Your task to perform on an android device: open app "Move to iOS" (install if not already installed), go to login, and select forgot password Image 0: 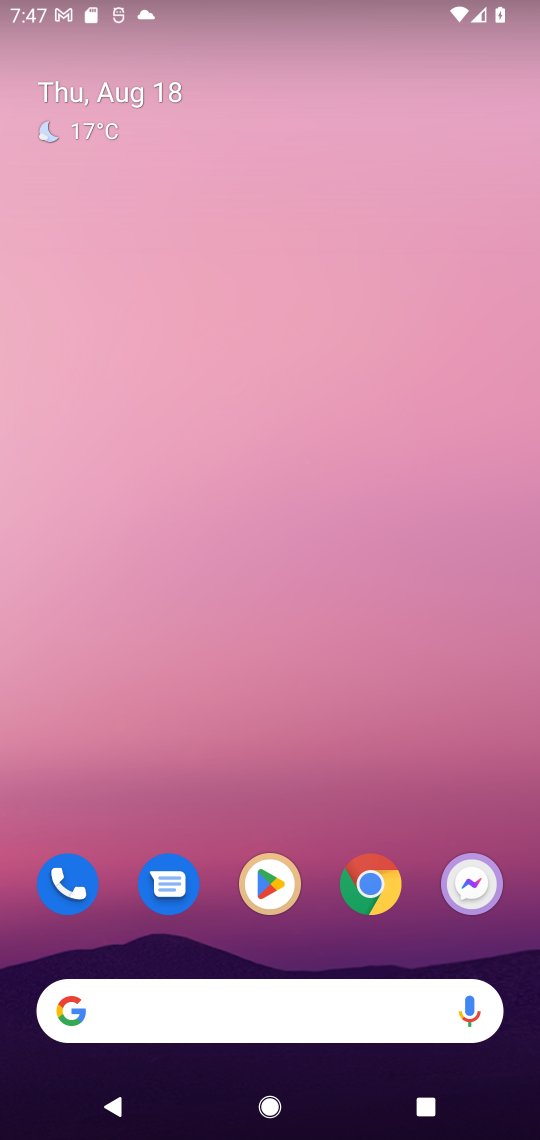
Step 0: drag from (314, 1011) to (342, 141)
Your task to perform on an android device: open app "Move to iOS" (install if not already installed), go to login, and select forgot password Image 1: 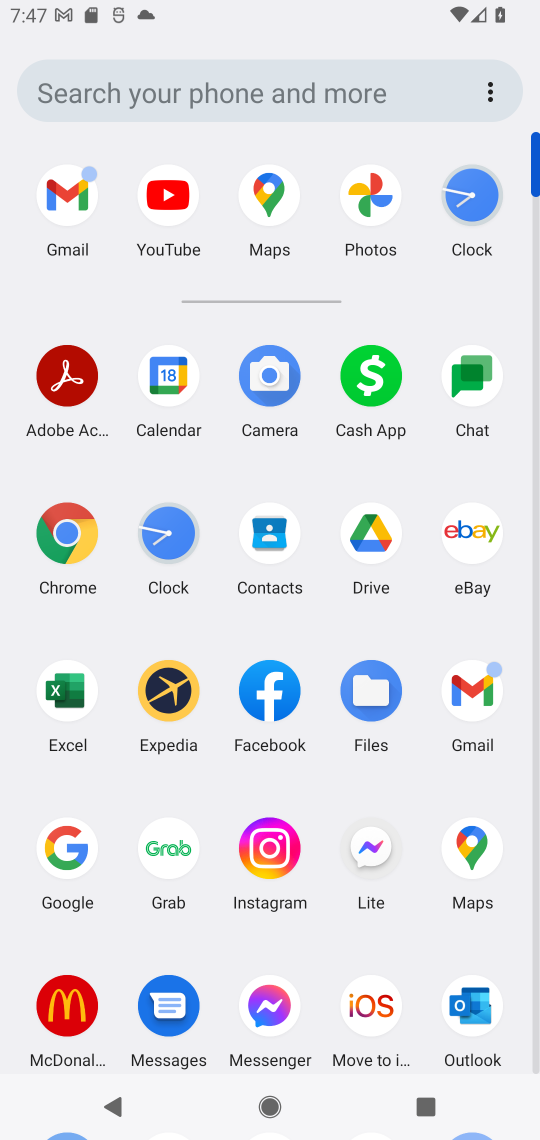
Step 1: drag from (314, 481) to (359, 161)
Your task to perform on an android device: open app "Move to iOS" (install if not already installed), go to login, and select forgot password Image 2: 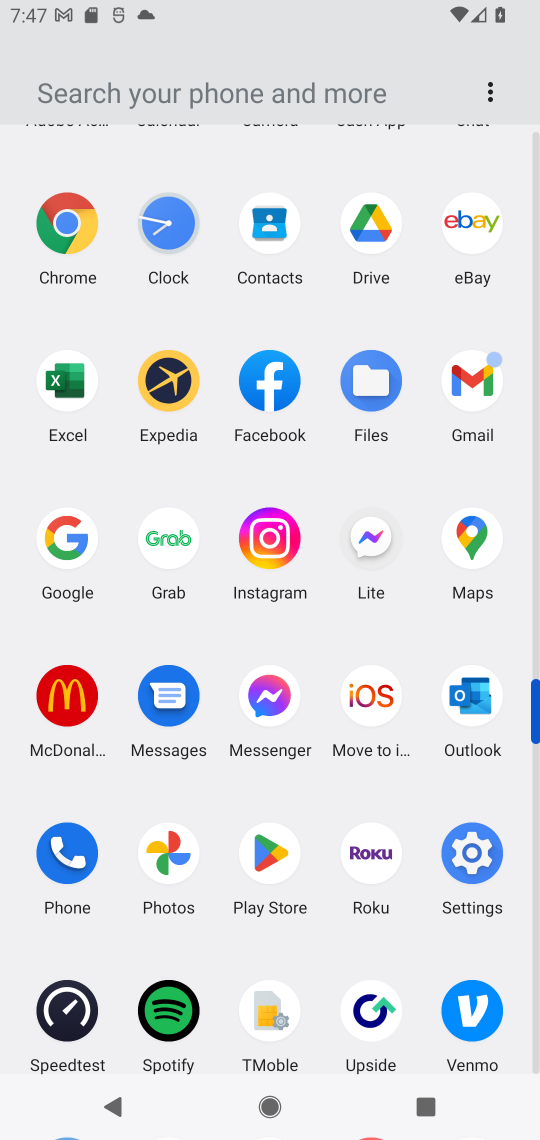
Step 2: drag from (327, 538) to (341, 192)
Your task to perform on an android device: open app "Move to iOS" (install if not already installed), go to login, and select forgot password Image 3: 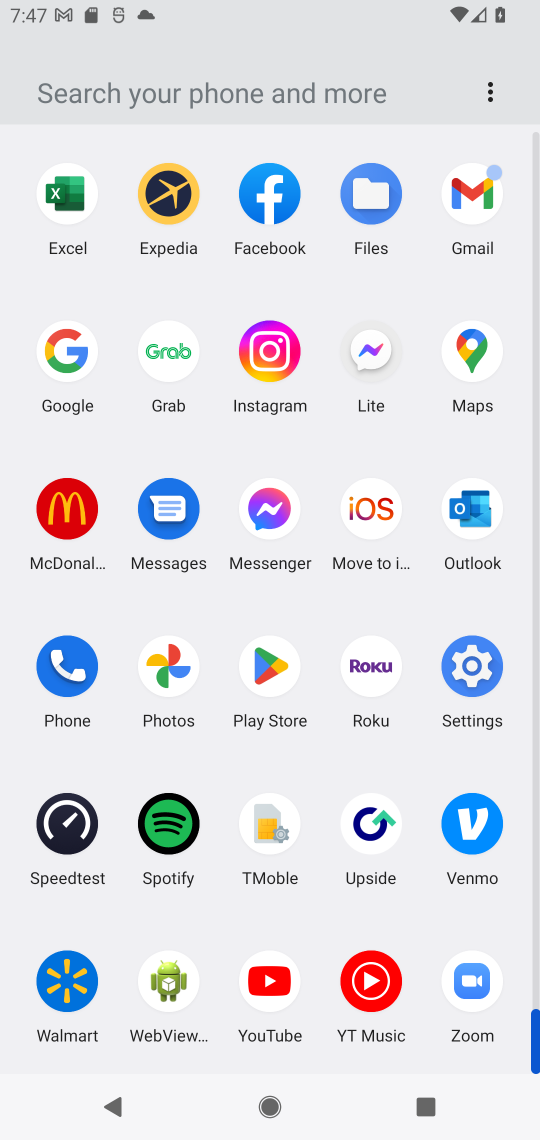
Step 3: click (274, 672)
Your task to perform on an android device: open app "Move to iOS" (install if not already installed), go to login, and select forgot password Image 4: 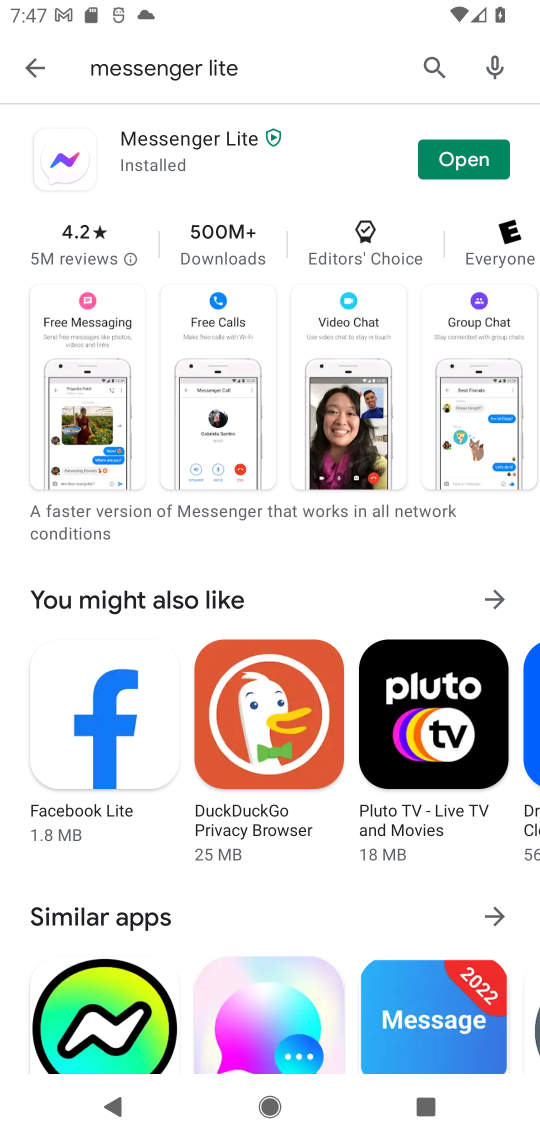
Step 4: press back button
Your task to perform on an android device: open app "Move to iOS" (install if not already installed), go to login, and select forgot password Image 5: 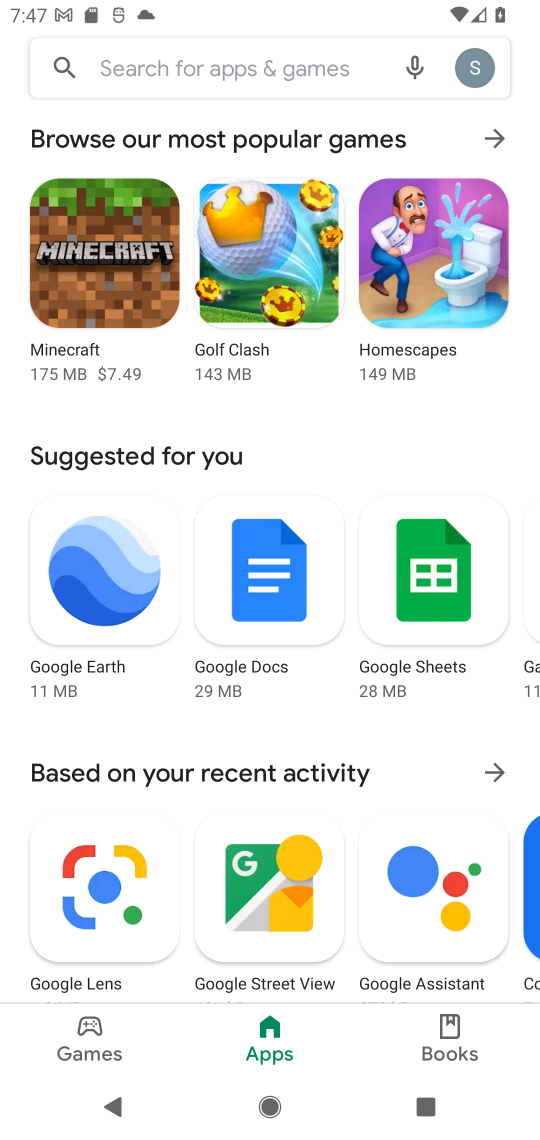
Step 5: click (290, 69)
Your task to perform on an android device: open app "Move to iOS" (install if not already installed), go to login, and select forgot password Image 6: 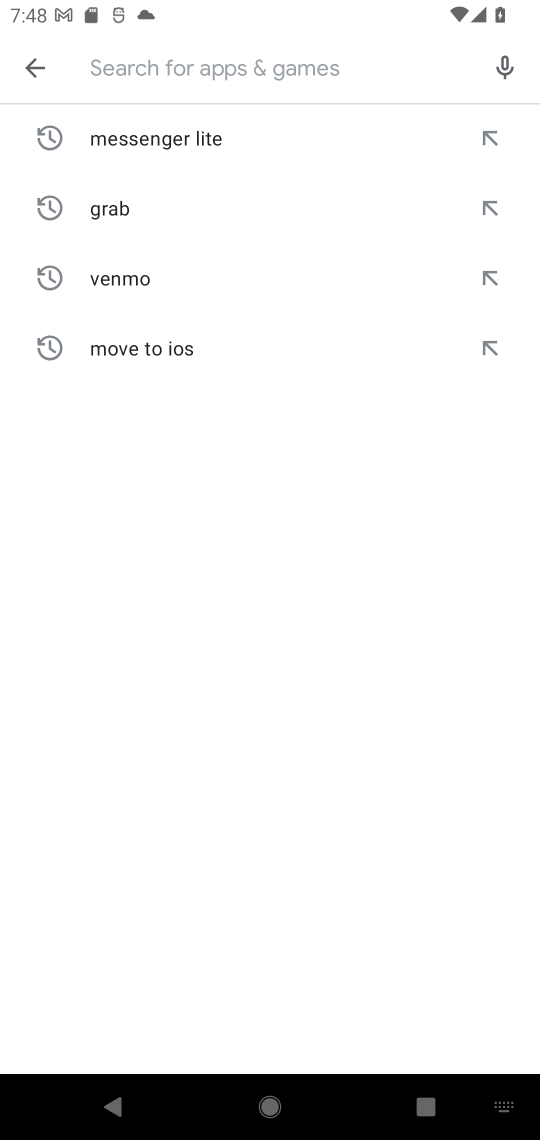
Step 6: type "Move to iOS"
Your task to perform on an android device: open app "Move to iOS" (install if not already installed), go to login, and select forgot password Image 7: 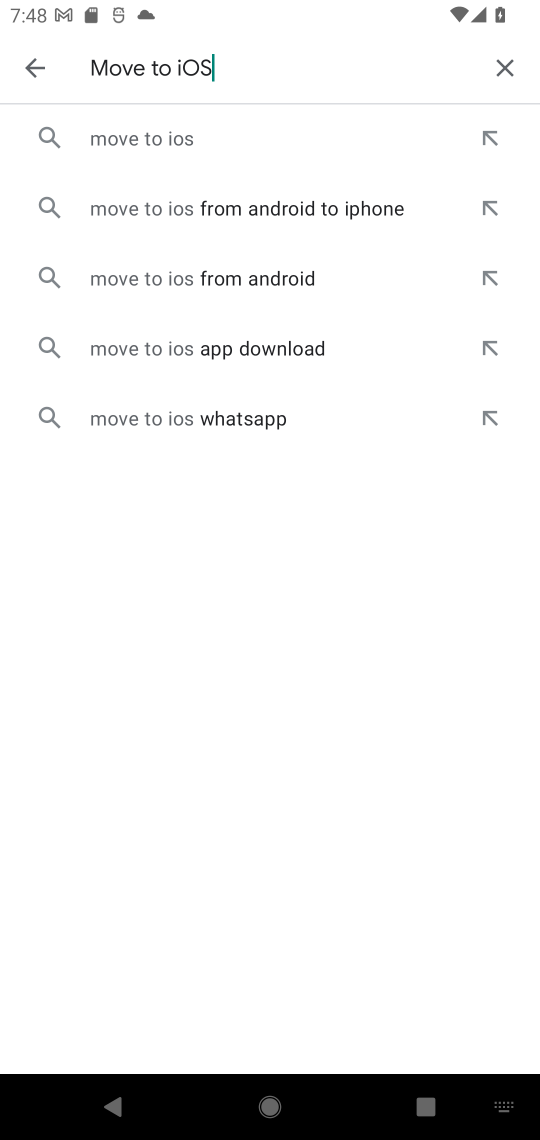
Step 7: click (151, 142)
Your task to perform on an android device: open app "Move to iOS" (install if not already installed), go to login, and select forgot password Image 8: 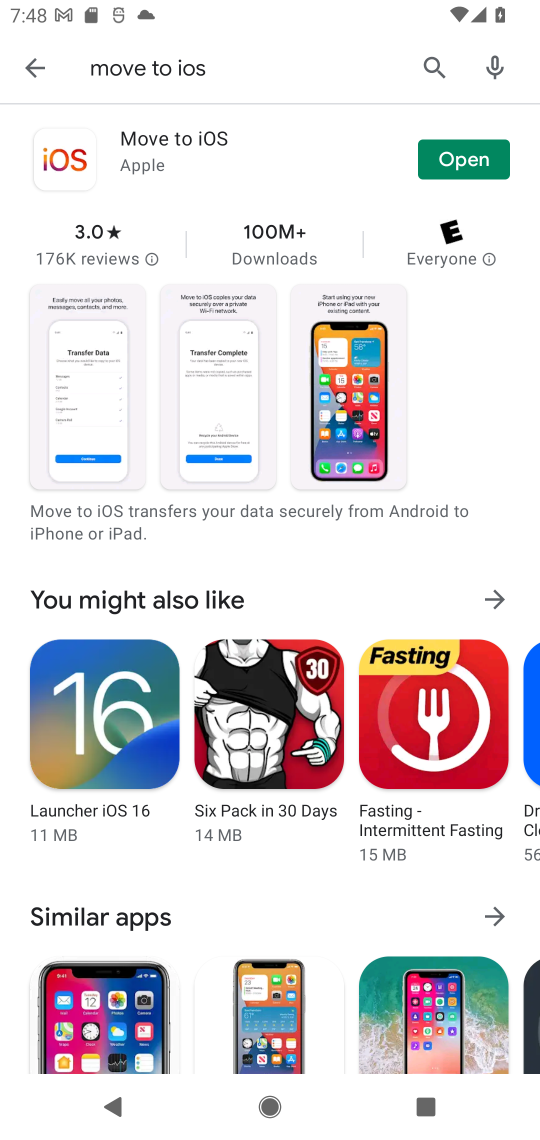
Step 8: click (470, 159)
Your task to perform on an android device: open app "Move to iOS" (install if not already installed), go to login, and select forgot password Image 9: 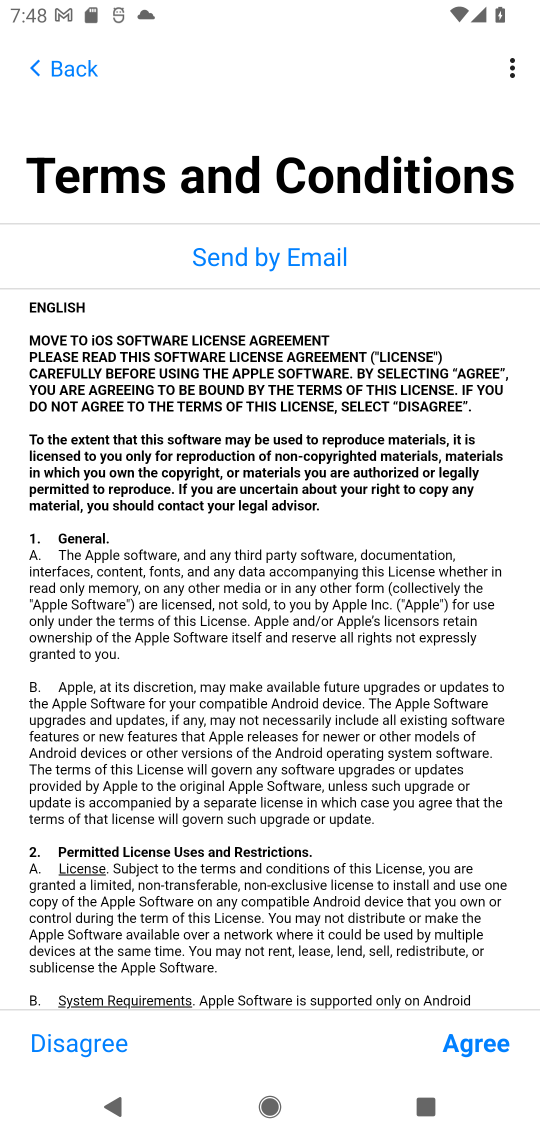
Step 9: drag from (299, 746) to (366, 12)
Your task to perform on an android device: open app "Move to iOS" (install if not already installed), go to login, and select forgot password Image 10: 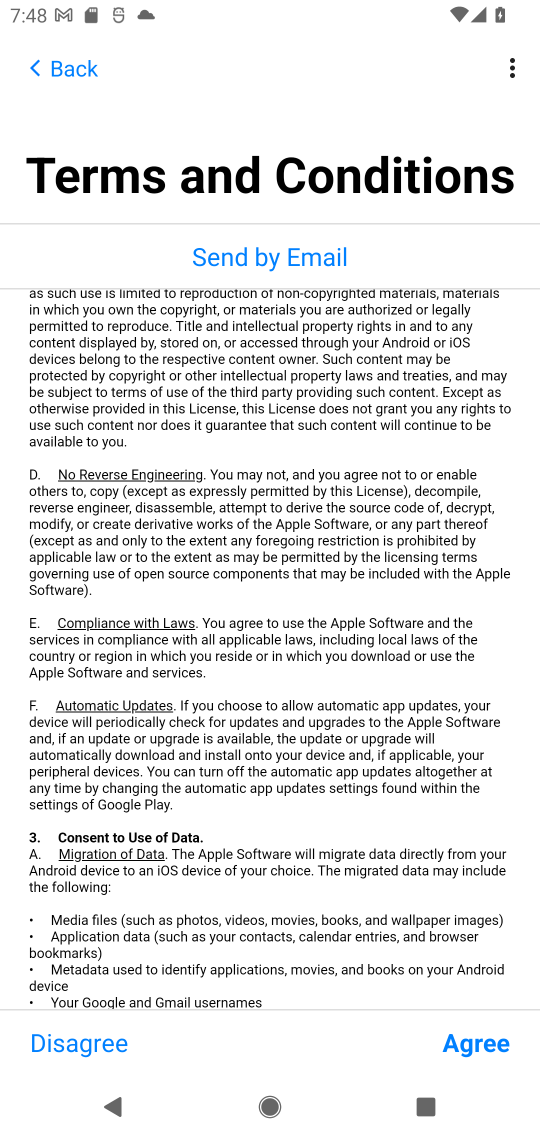
Step 10: drag from (307, 978) to (384, 15)
Your task to perform on an android device: open app "Move to iOS" (install if not already installed), go to login, and select forgot password Image 11: 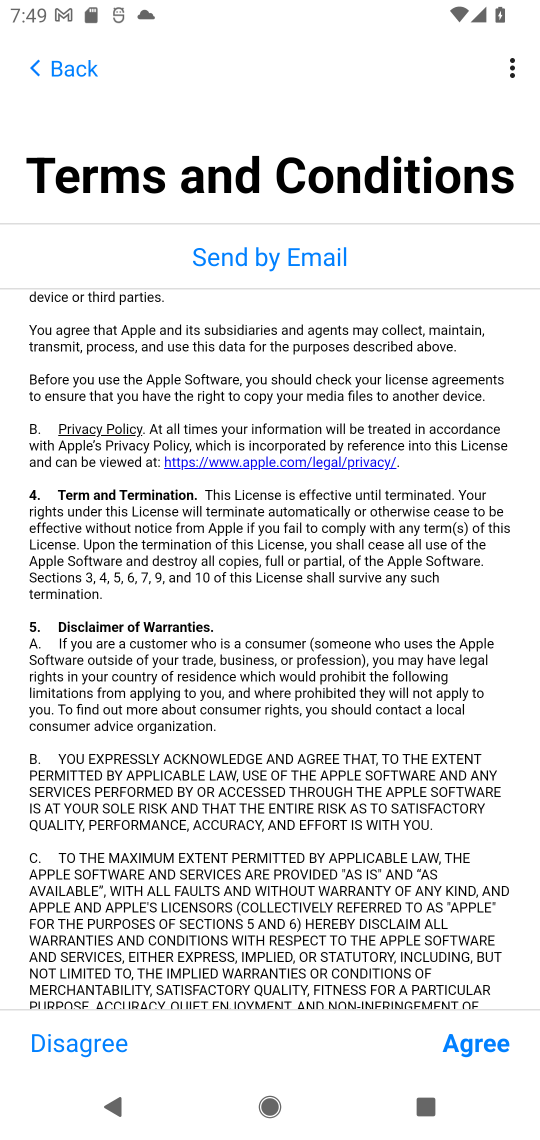
Step 11: drag from (253, 1024) to (338, 38)
Your task to perform on an android device: open app "Move to iOS" (install if not already installed), go to login, and select forgot password Image 12: 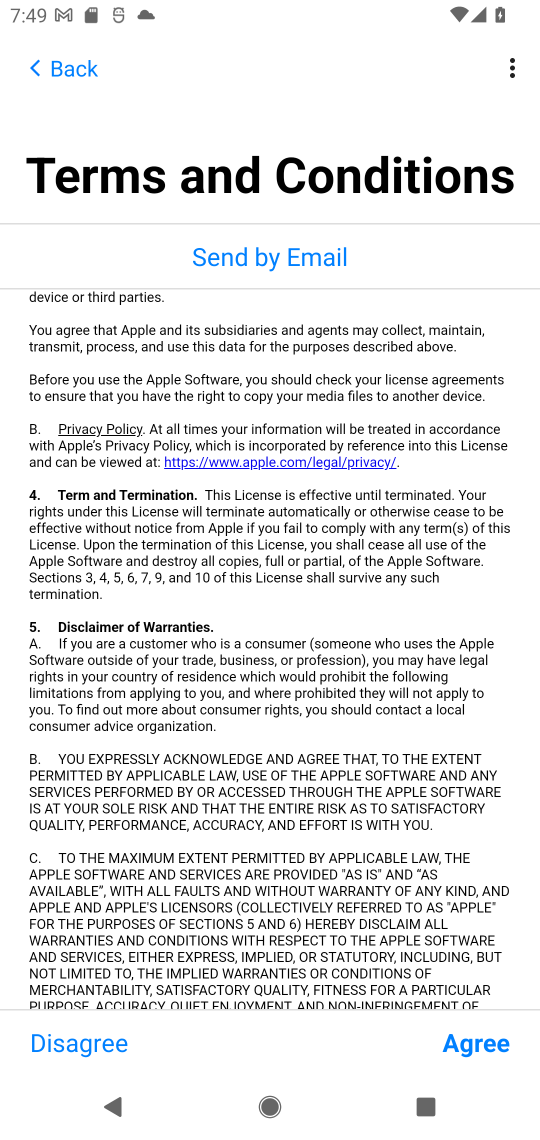
Step 12: drag from (228, 970) to (286, 170)
Your task to perform on an android device: open app "Move to iOS" (install if not already installed), go to login, and select forgot password Image 13: 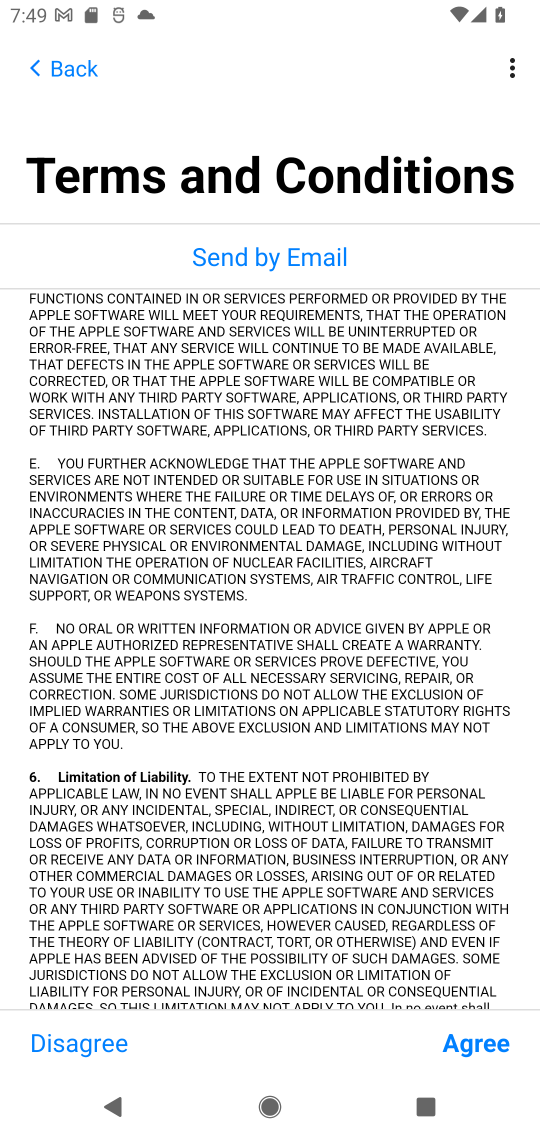
Step 13: drag from (274, 977) to (333, 313)
Your task to perform on an android device: open app "Move to iOS" (install if not already installed), go to login, and select forgot password Image 14: 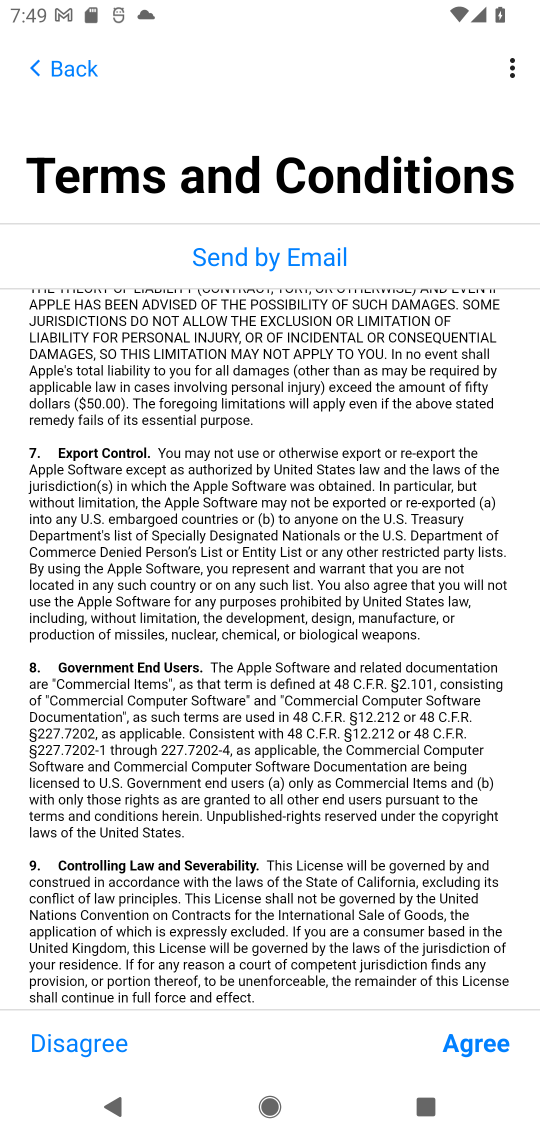
Step 14: drag from (253, 973) to (316, 489)
Your task to perform on an android device: open app "Move to iOS" (install if not already installed), go to login, and select forgot password Image 15: 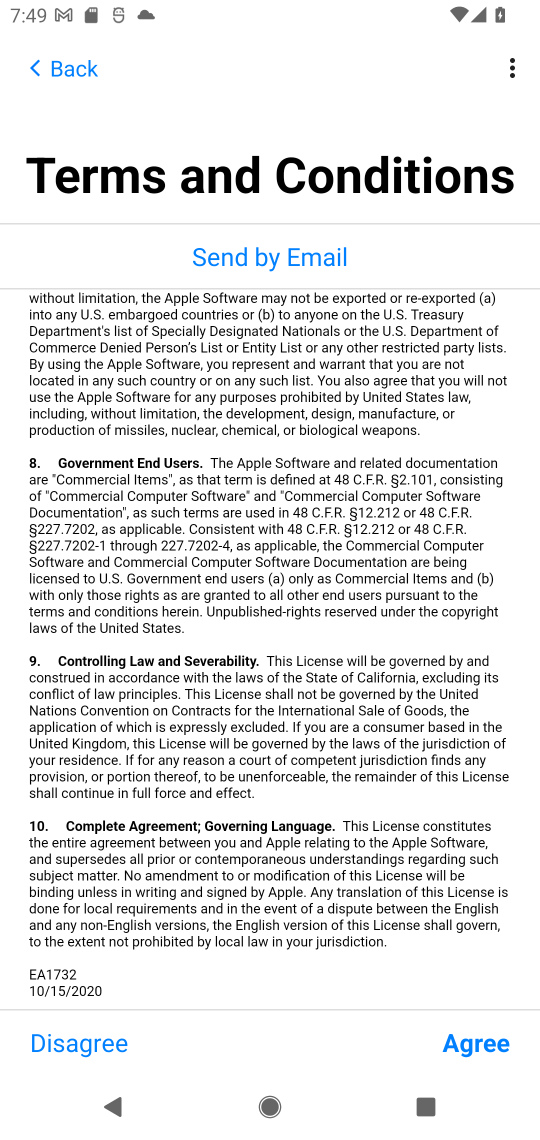
Step 15: click (501, 1042)
Your task to perform on an android device: open app "Move to iOS" (install if not already installed), go to login, and select forgot password Image 16: 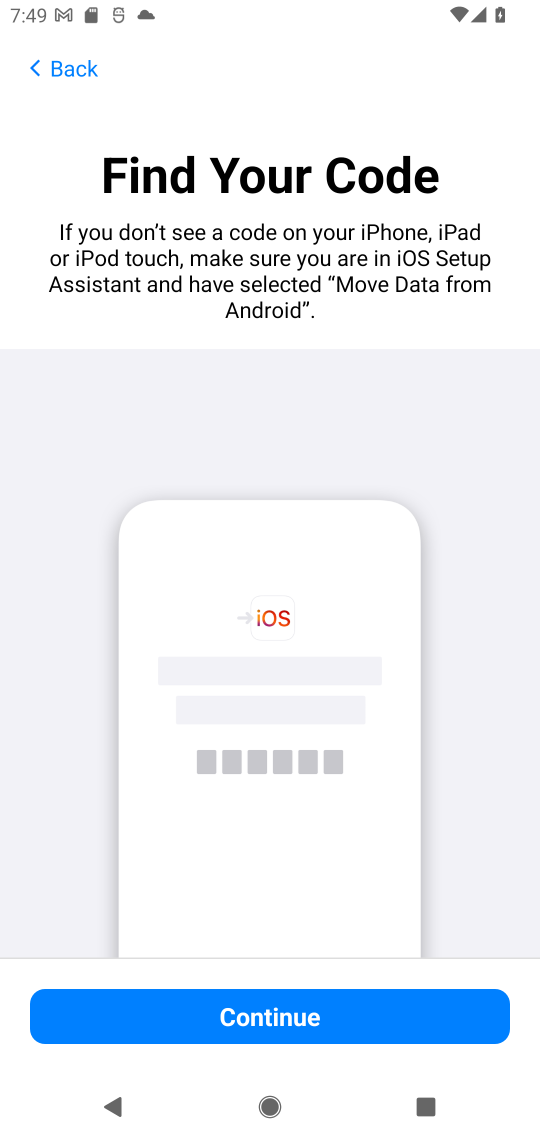
Step 16: press back button
Your task to perform on an android device: open app "Move to iOS" (install if not already installed), go to login, and select forgot password Image 17: 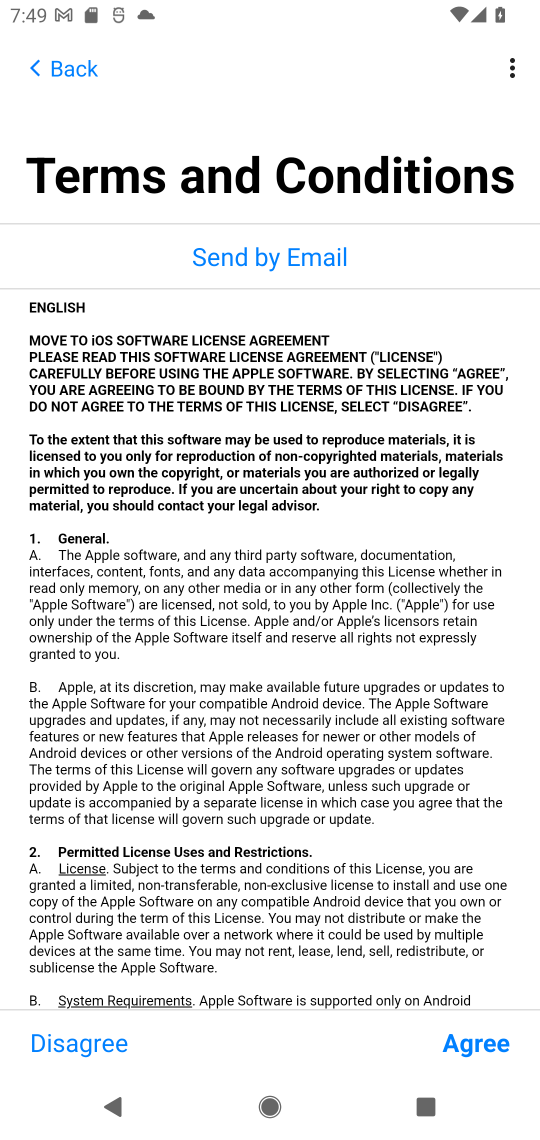
Step 17: click (283, 267)
Your task to perform on an android device: open app "Move to iOS" (install if not already installed), go to login, and select forgot password Image 18: 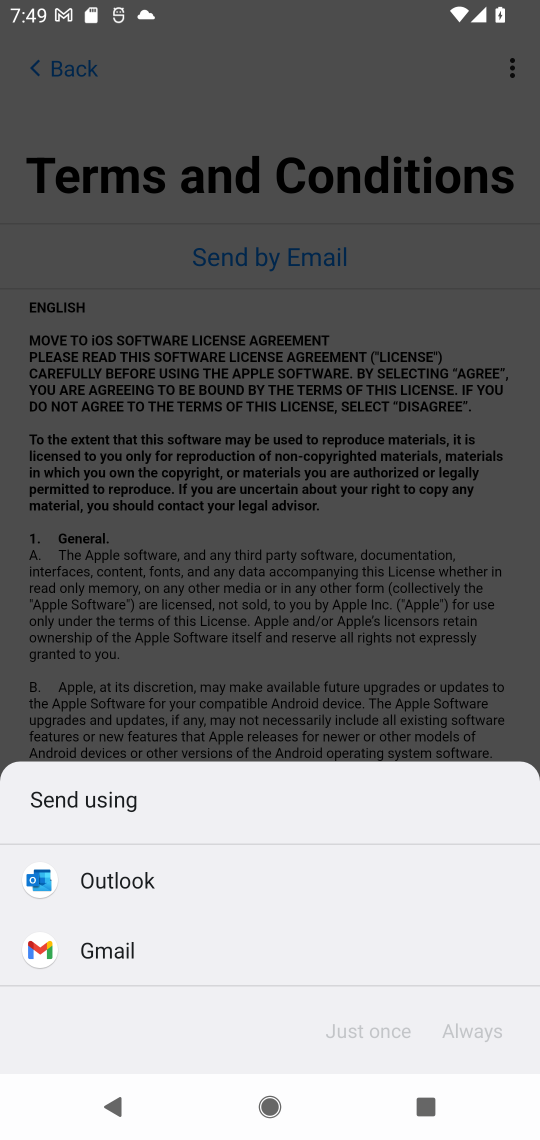
Step 18: click (100, 938)
Your task to perform on an android device: open app "Move to iOS" (install if not already installed), go to login, and select forgot password Image 19: 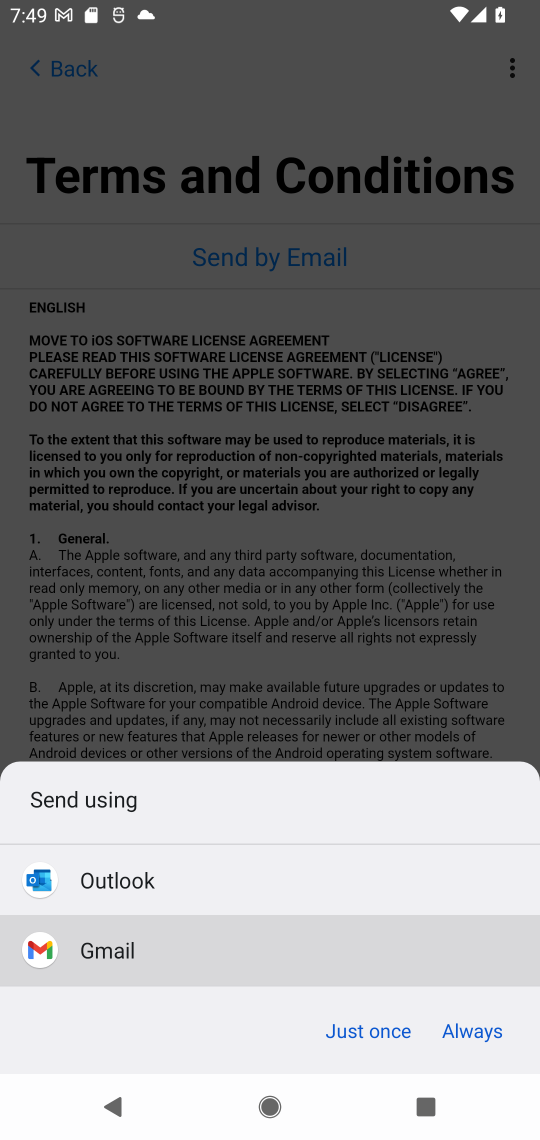
Step 19: click (400, 1038)
Your task to perform on an android device: open app "Move to iOS" (install if not already installed), go to login, and select forgot password Image 20: 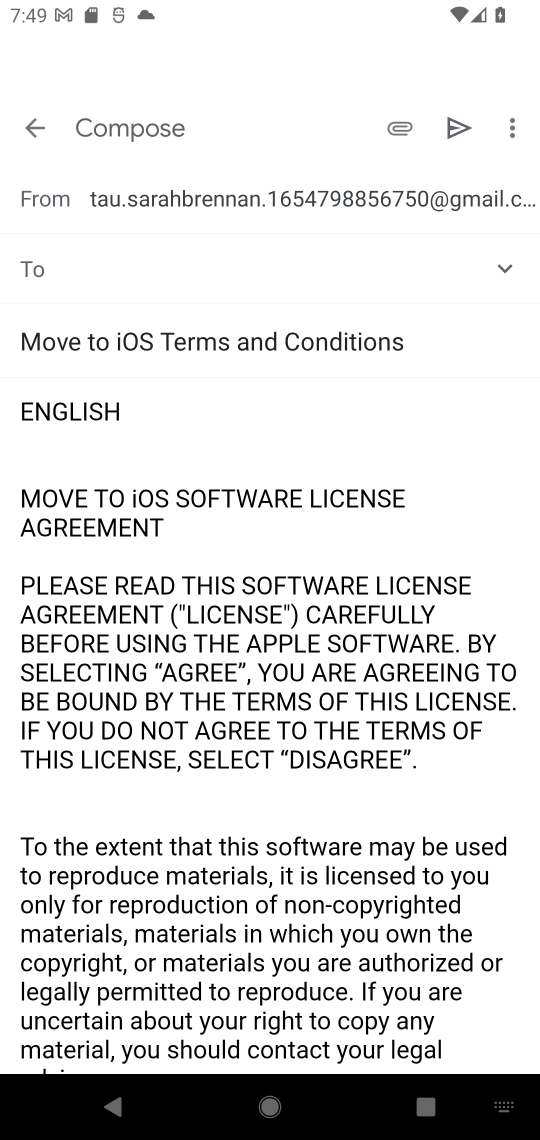
Step 20: press back button
Your task to perform on an android device: open app "Move to iOS" (install if not already installed), go to login, and select forgot password Image 21: 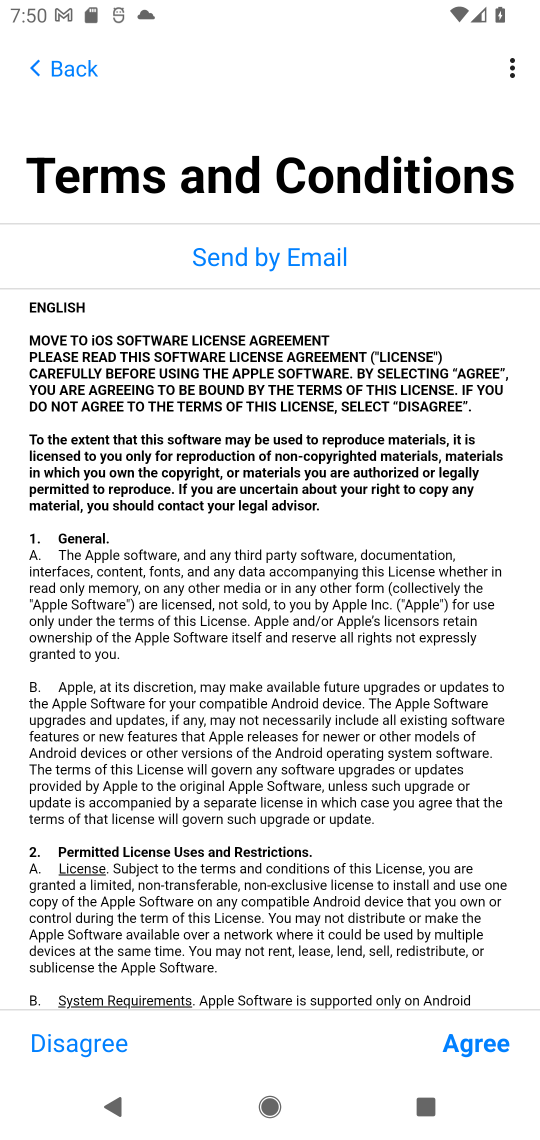
Step 21: click (477, 1041)
Your task to perform on an android device: open app "Move to iOS" (install if not already installed), go to login, and select forgot password Image 22: 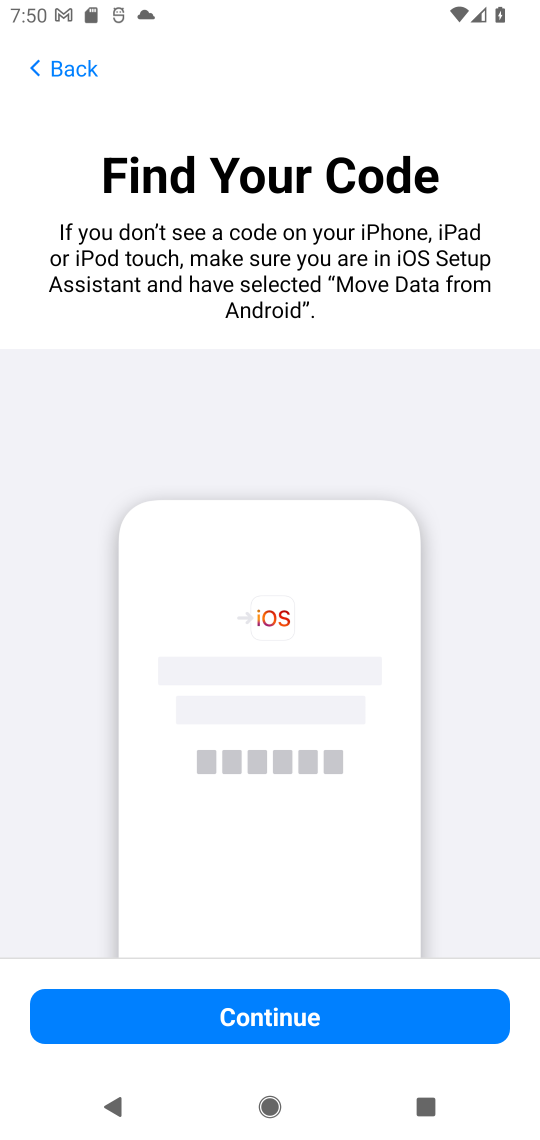
Step 22: click (361, 1013)
Your task to perform on an android device: open app "Move to iOS" (install if not already installed), go to login, and select forgot password Image 23: 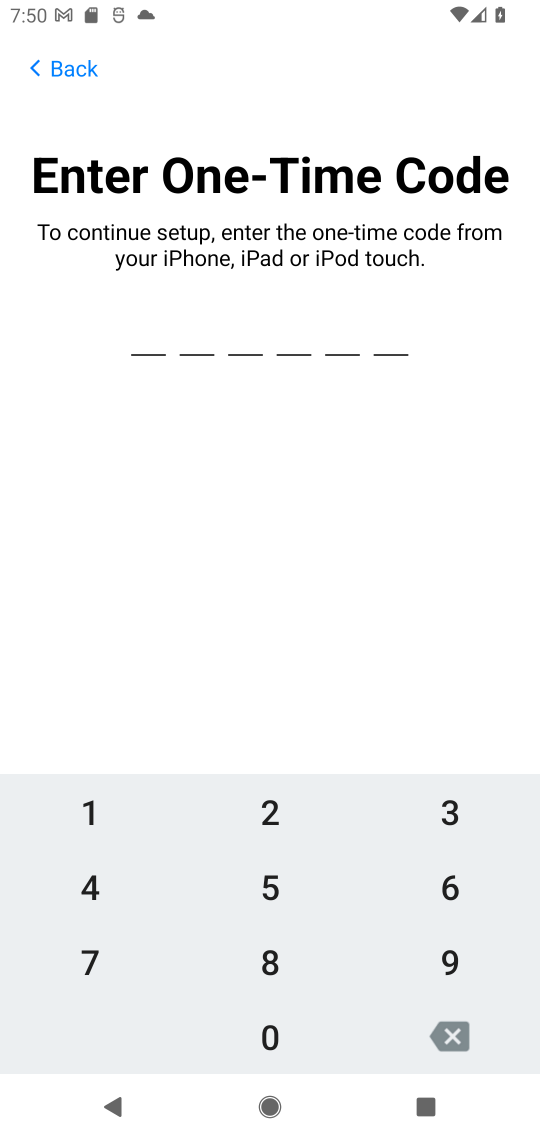
Step 23: task complete